Your task to perform on an android device: Search for hotels in Austin Image 0: 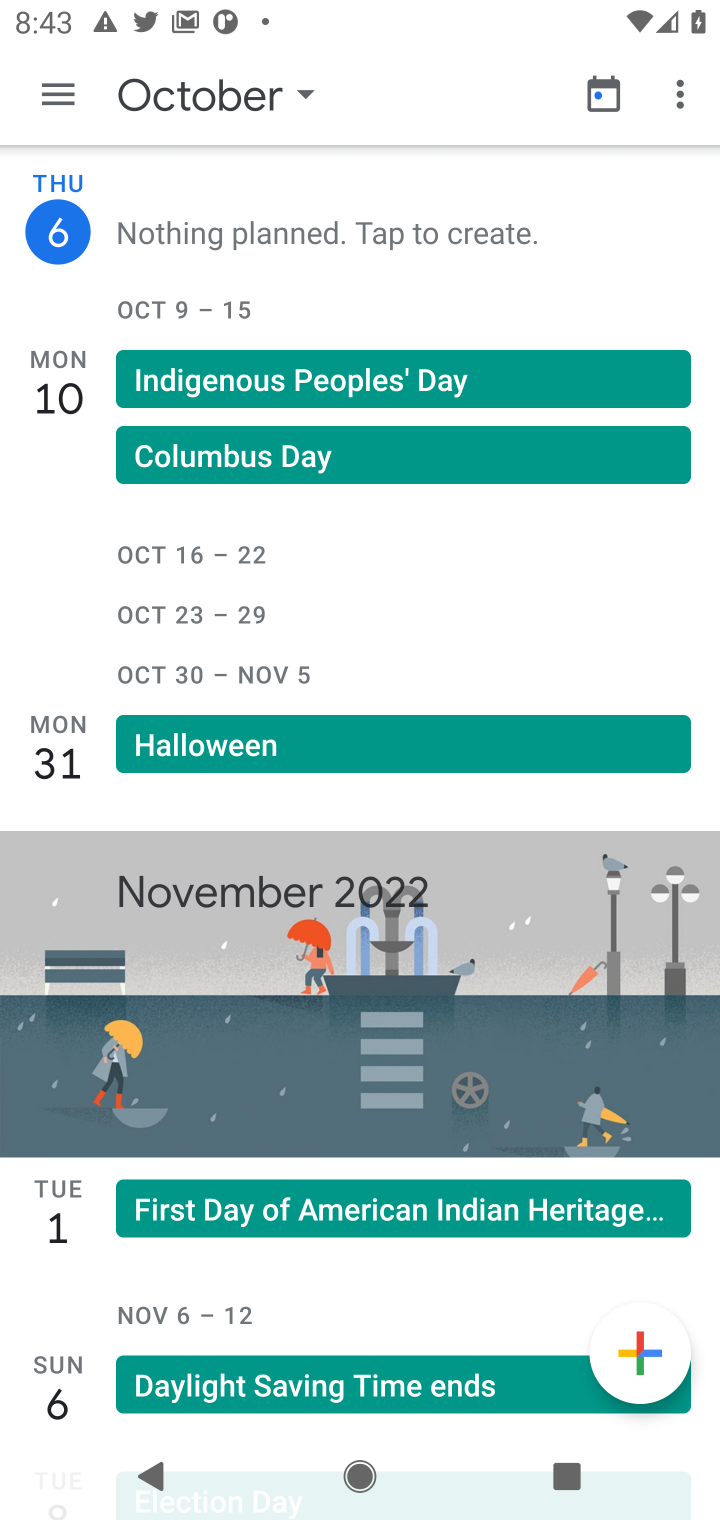
Step 0: press home button
Your task to perform on an android device: Search for hotels in Austin Image 1: 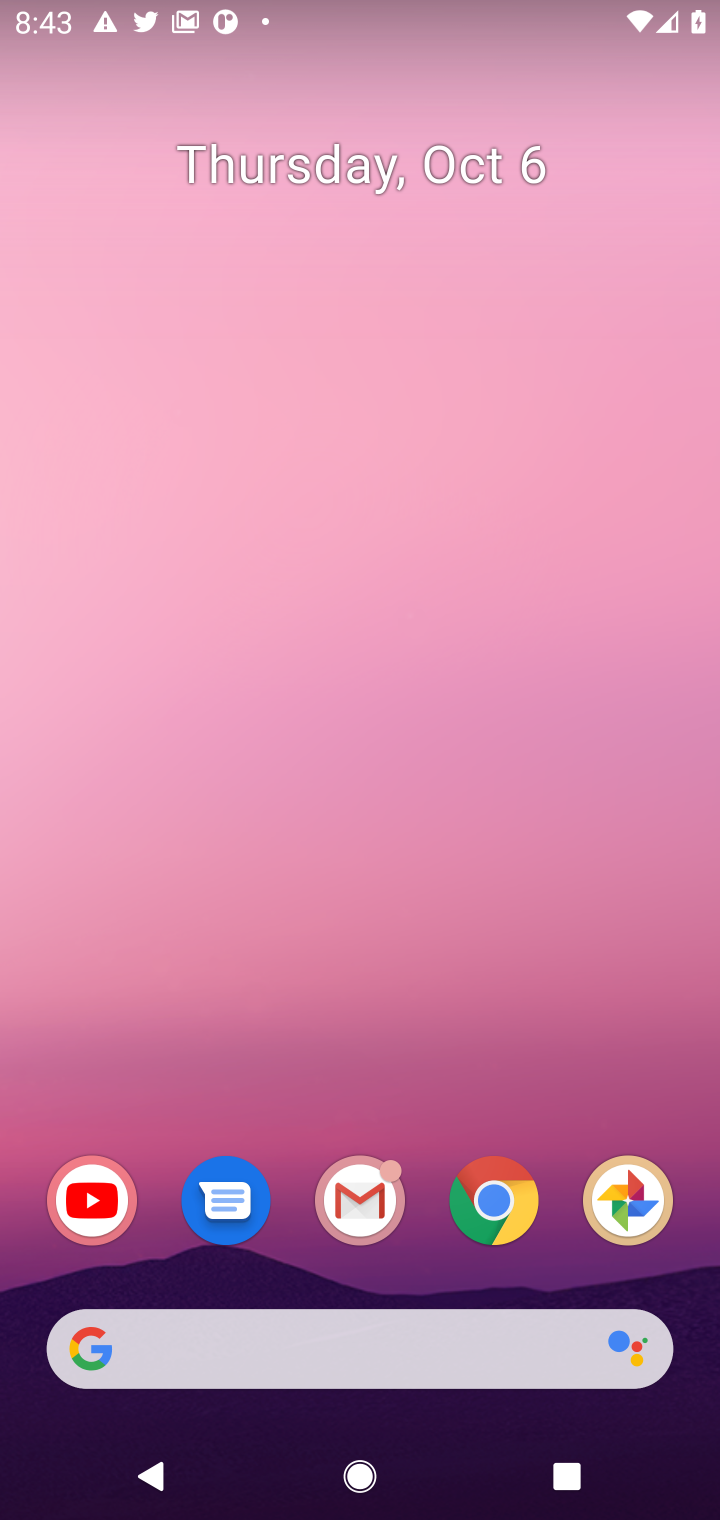
Step 1: click (499, 1188)
Your task to perform on an android device: Search for hotels in Austin Image 2: 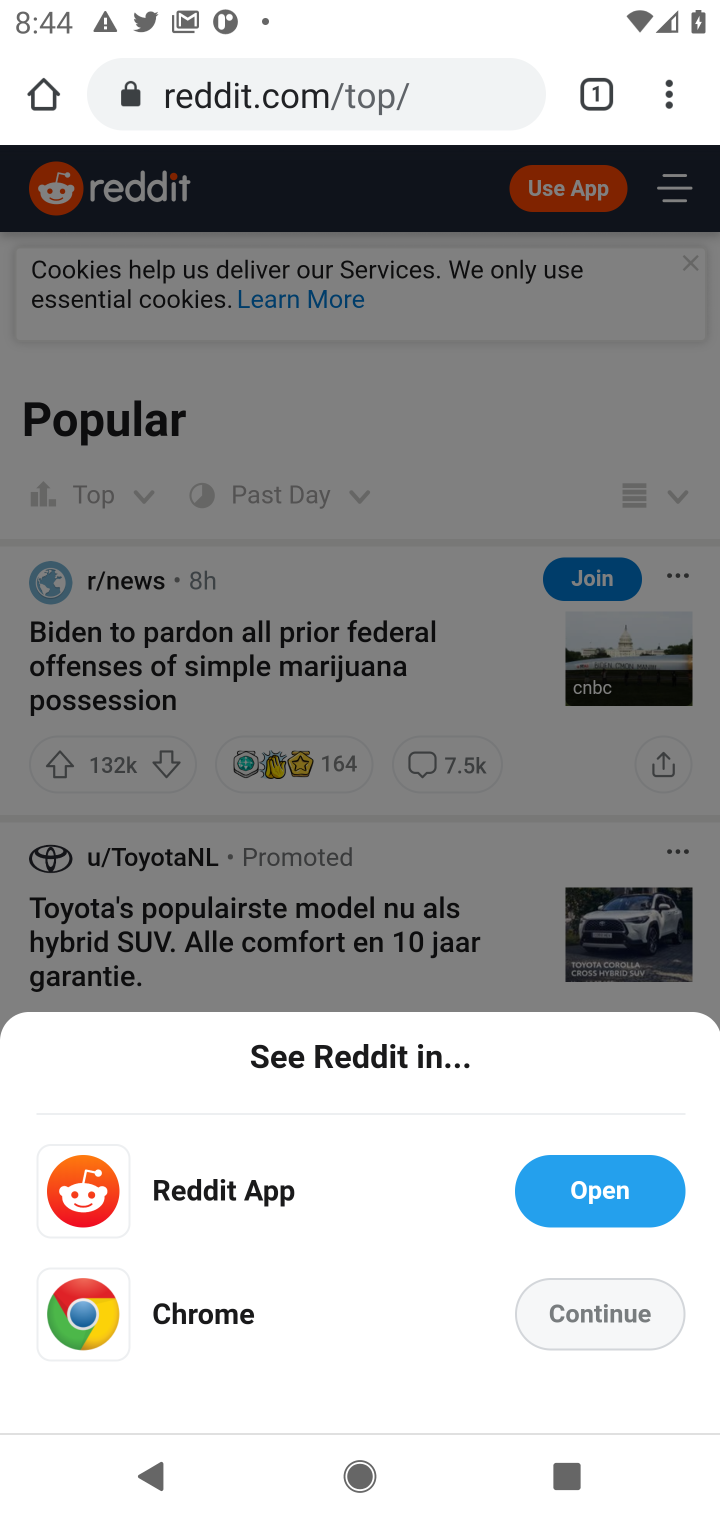
Step 2: click (277, 99)
Your task to perform on an android device: Search for hotels in Austin Image 3: 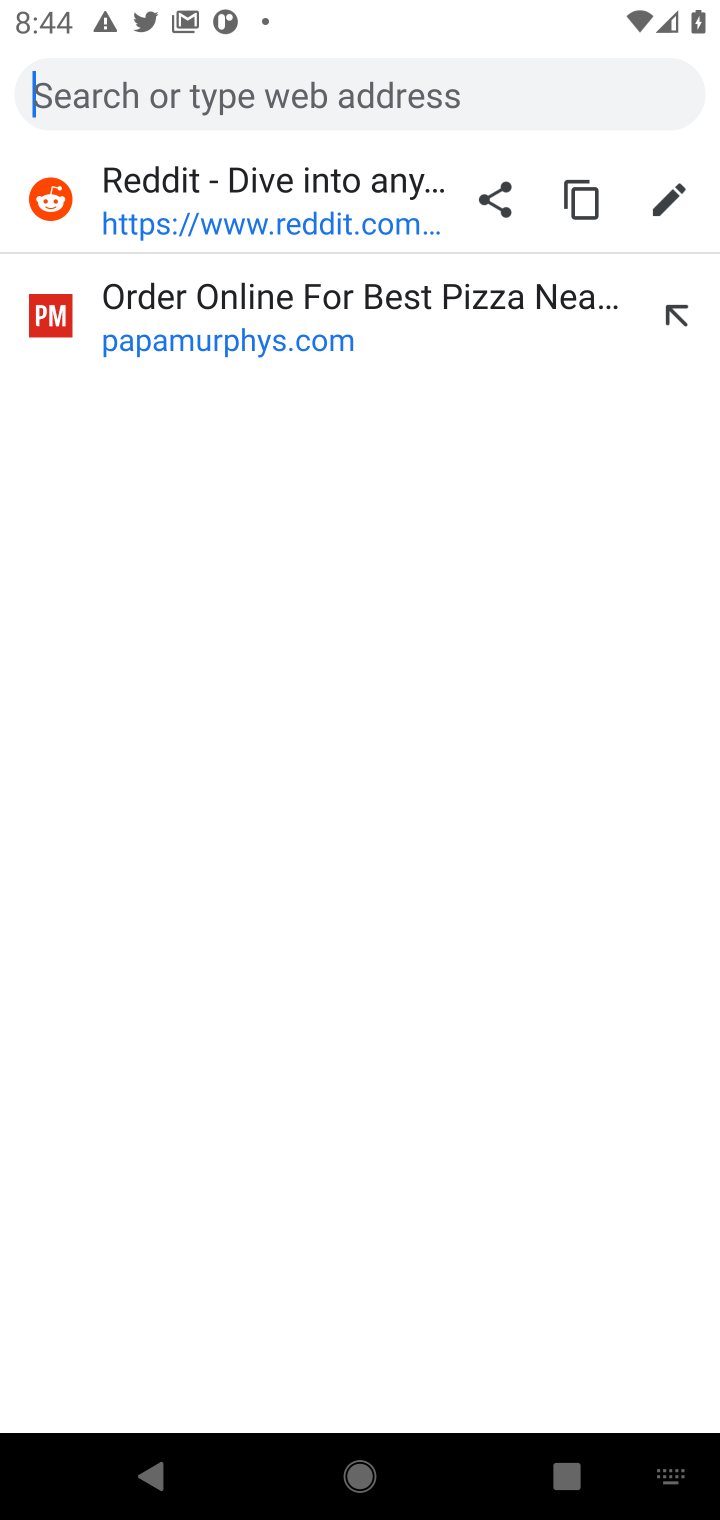
Step 3: type "hotel in austin"
Your task to perform on an android device: Search for hotels in Austin Image 4: 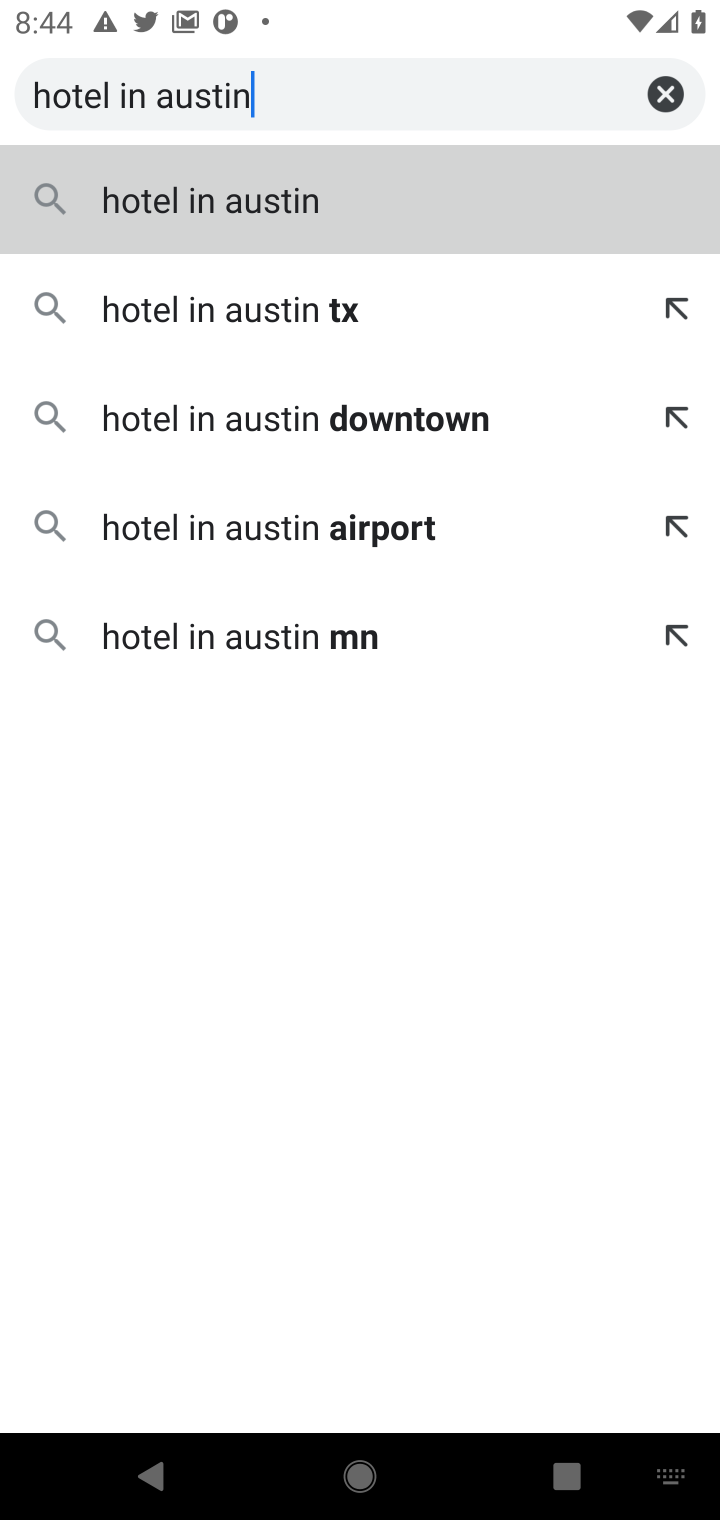
Step 4: click (224, 214)
Your task to perform on an android device: Search for hotels in Austin Image 5: 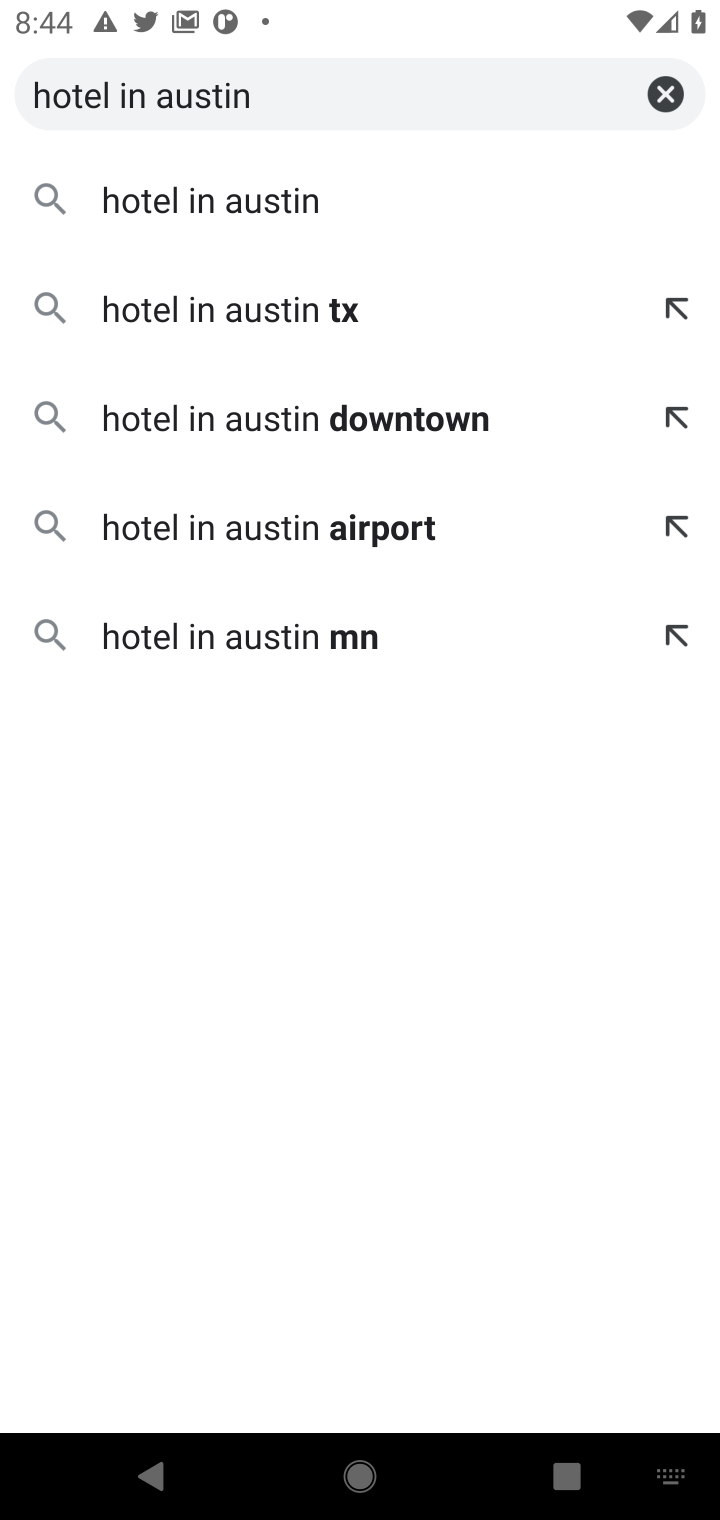
Step 5: click (202, 208)
Your task to perform on an android device: Search for hotels in Austin Image 6: 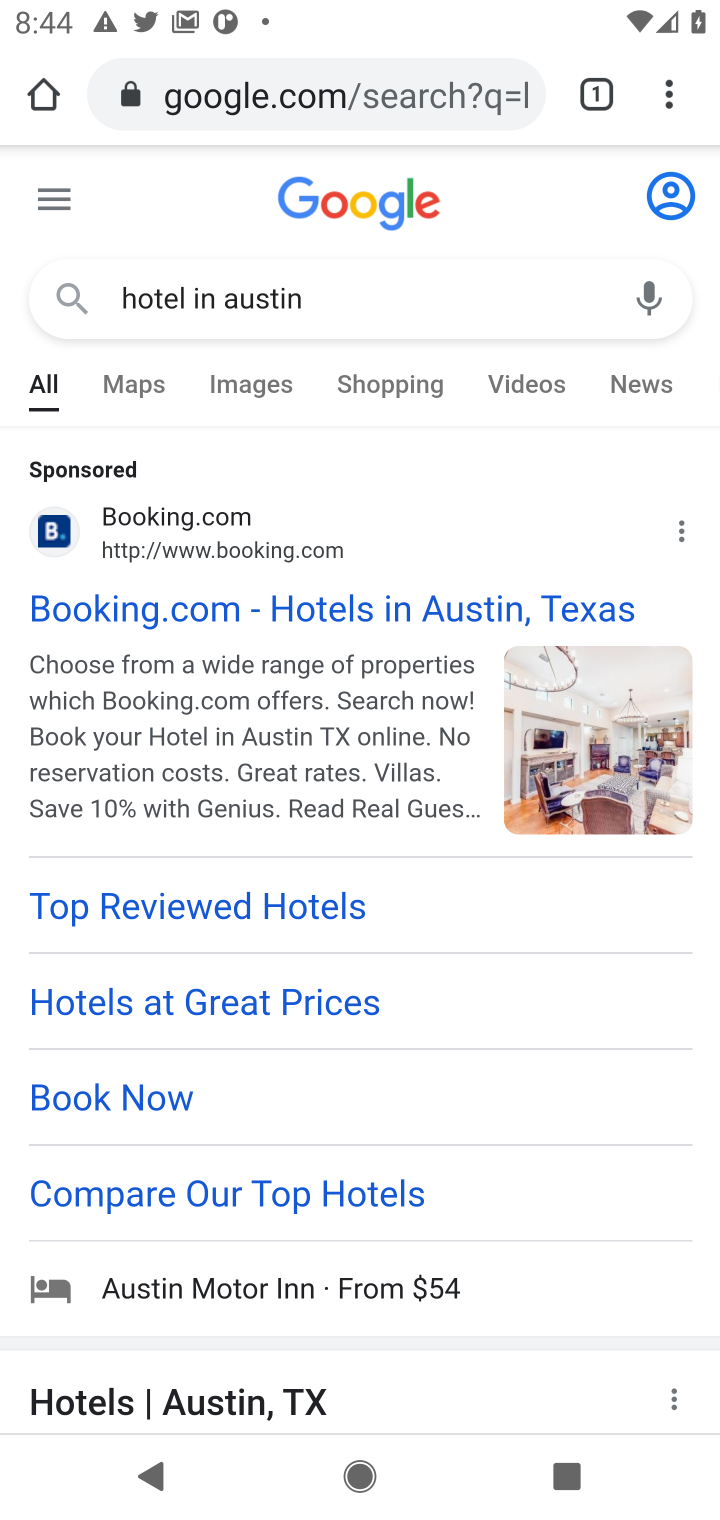
Step 6: click (320, 600)
Your task to perform on an android device: Search for hotels in Austin Image 7: 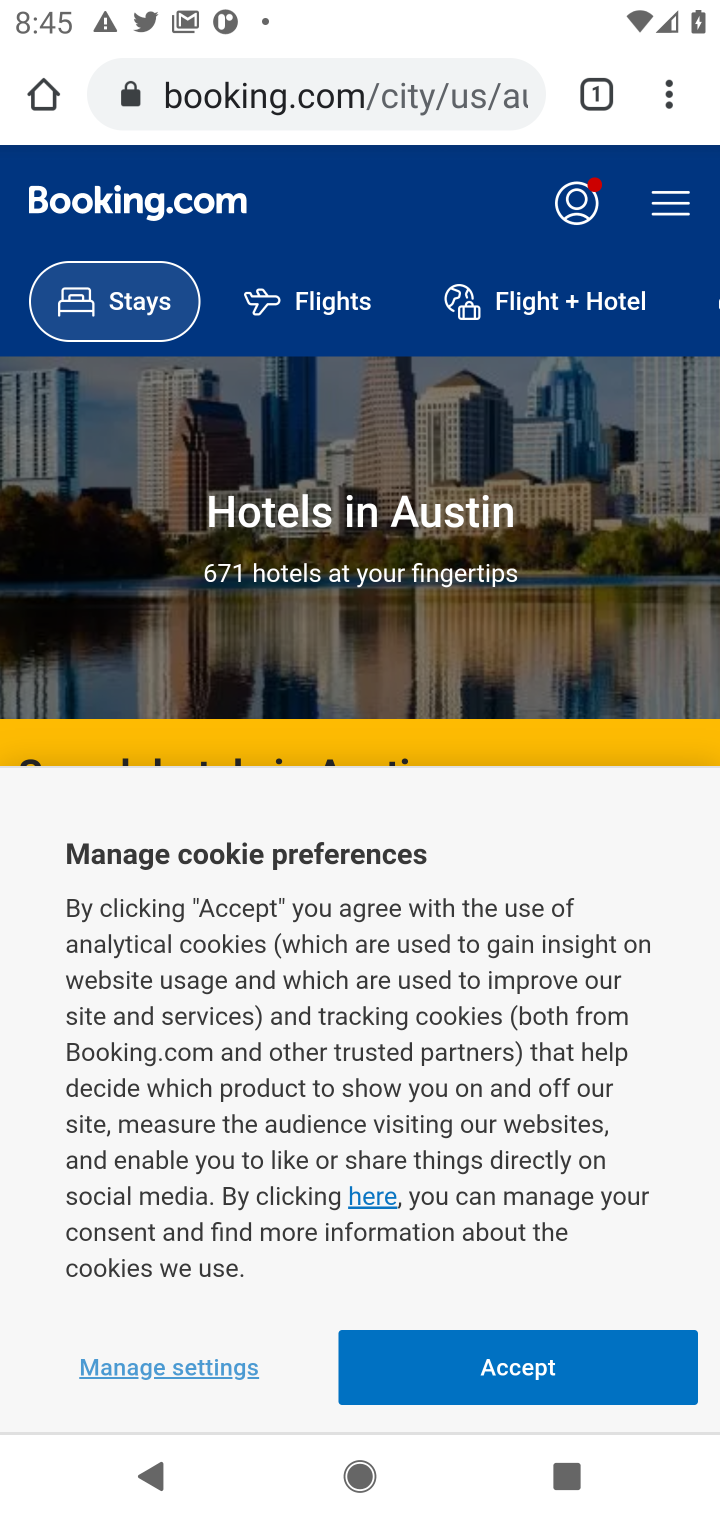
Step 7: click (490, 1380)
Your task to perform on an android device: Search for hotels in Austin Image 8: 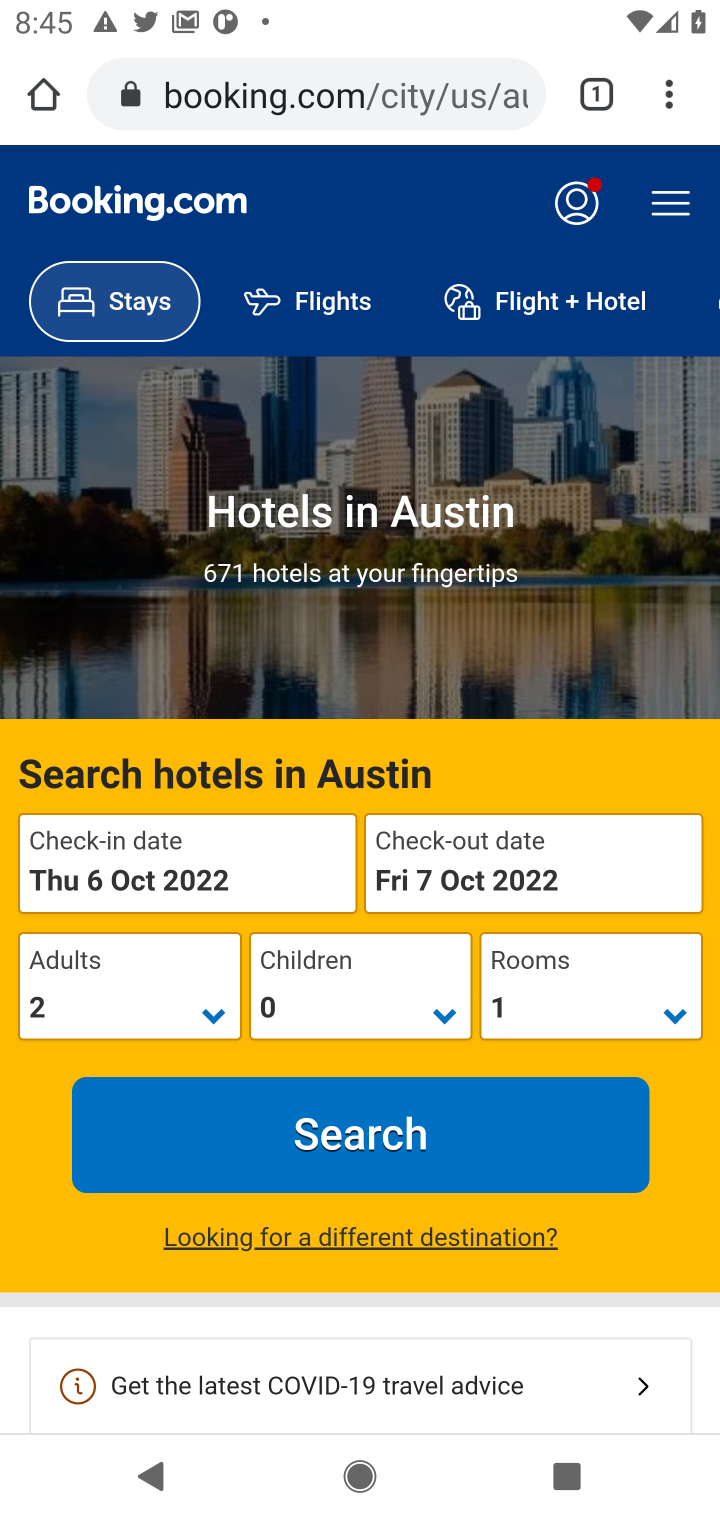
Step 8: click (394, 1151)
Your task to perform on an android device: Search for hotels in Austin Image 9: 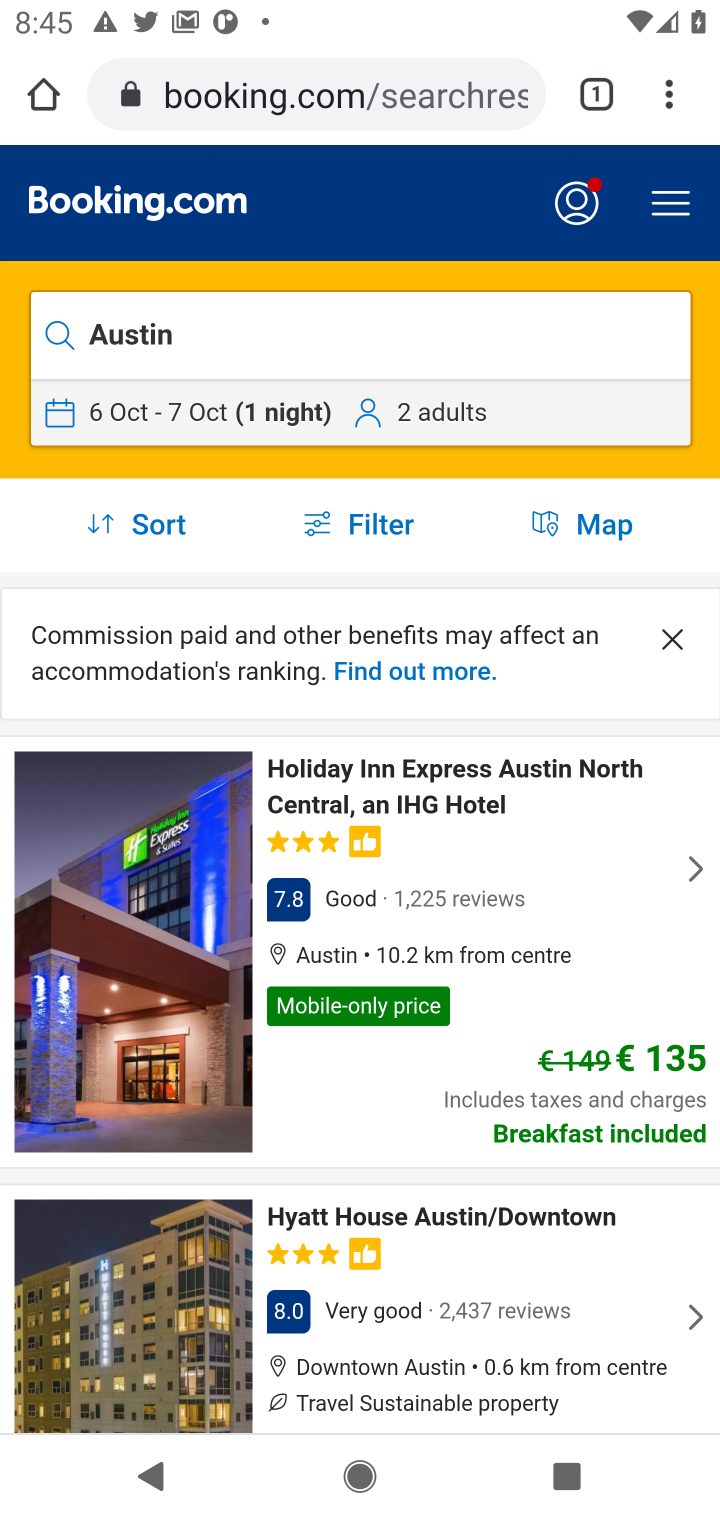
Step 9: task complete